Your task to perform on an android device: open a bookmark in the chrome app Image 0: 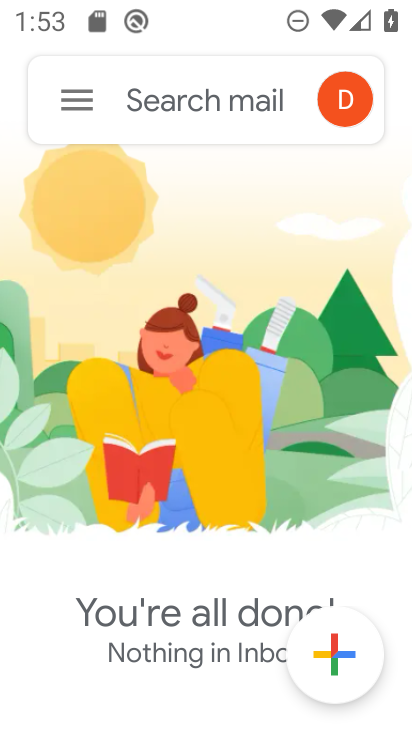
Step 0: press home button
Your task to perform on an android device: open a bookmark in the chrome app Image 1: 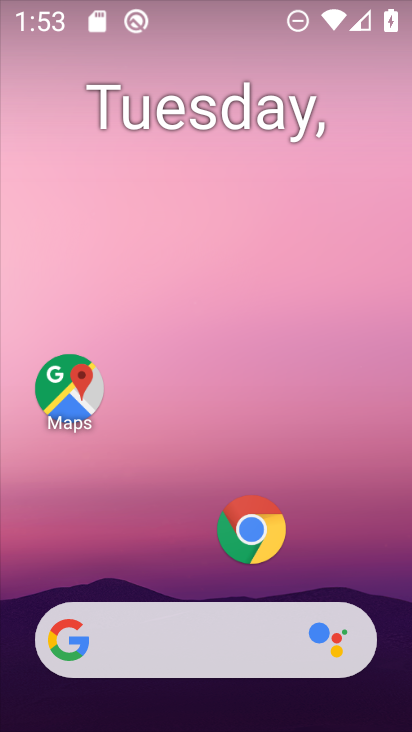
Step 1: click (267, 530)
Your task to perform on an android device: open a bookmark in the chrome app Image 2: 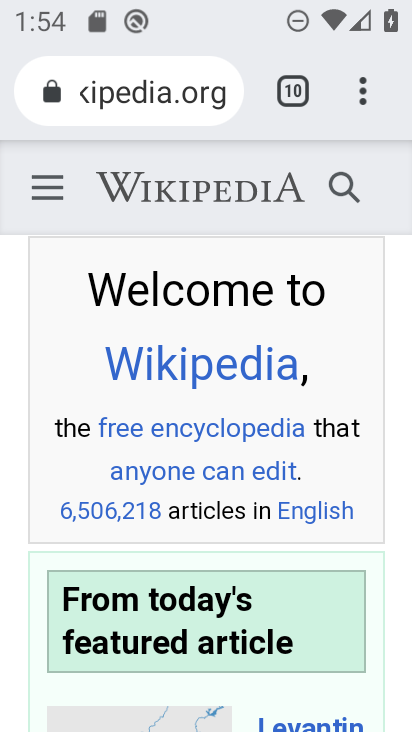
Step 2: click (365, 80)
Your task to perform on an android device: open a bookmark in the chrome app Image 3: 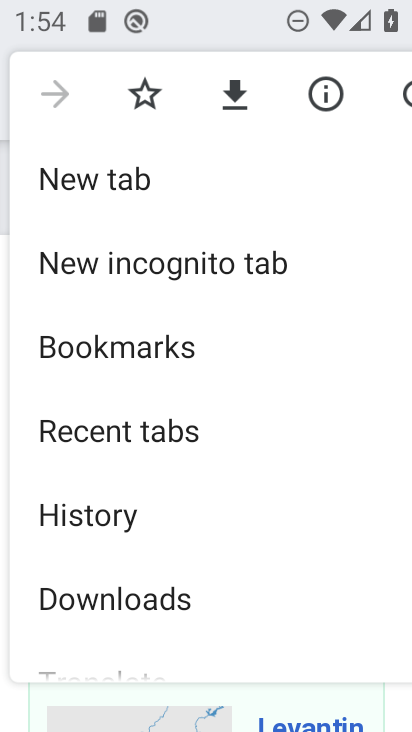
Step 3: click (151, 345)
Your task to perform on an android device: open a bookmark in the chrome app Image 4: 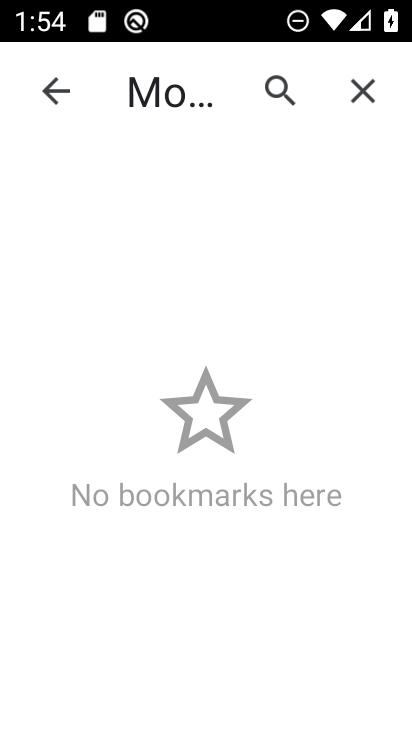
Step 4: task complete